Your task to perform on an android device: Open display settings Image 0: 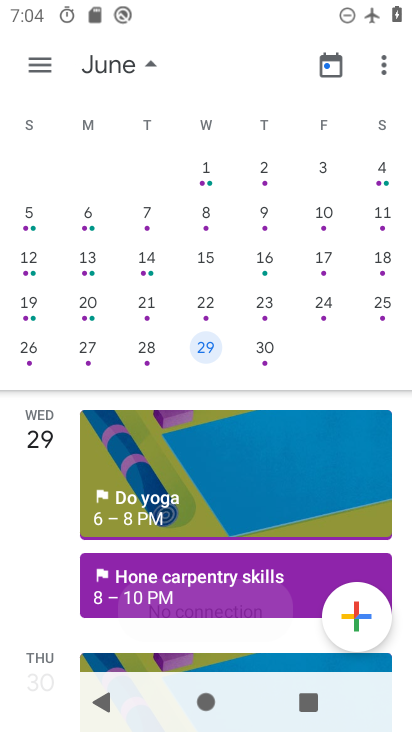
Step 0: press home button
Your task to perform on an android device: Open display settings Image 1: 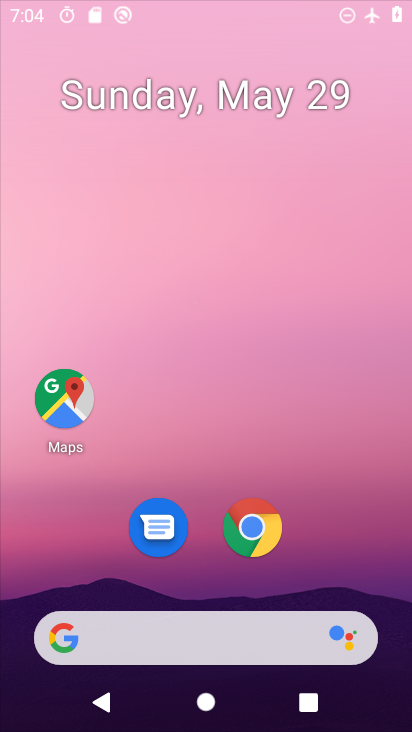
Step 1: drag from (312, 659) to (273, 23)
Your task to perform on an android device: Open display settings Image 2: 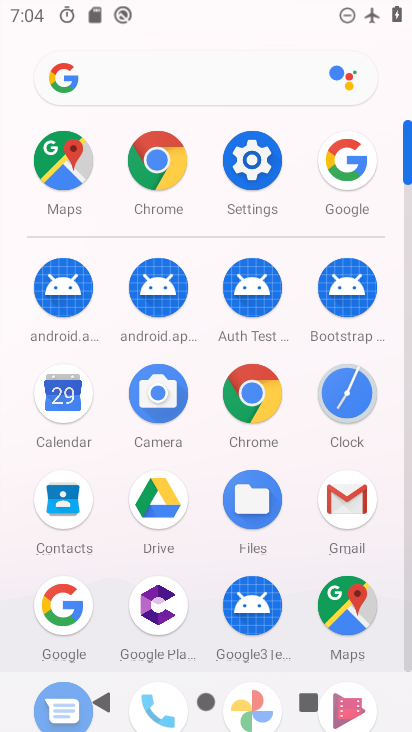
Step 2: click (279, 156)
Your task to perform on an android device: Open display settings Image 3: 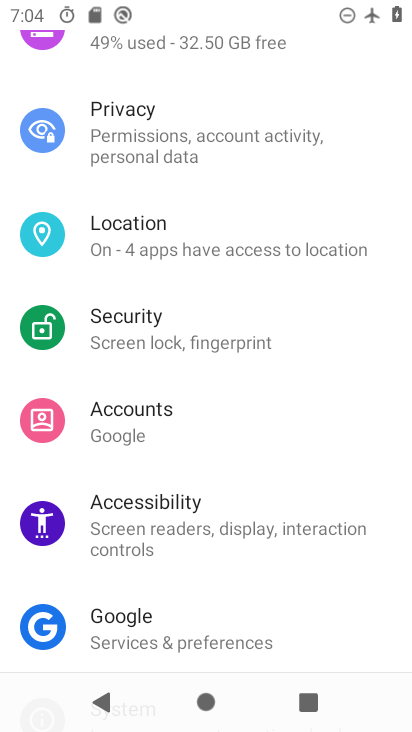
Step 3: drag from (137, 108) to (207, 536)
Your task to perform on an android device: Open display settings Image 4: 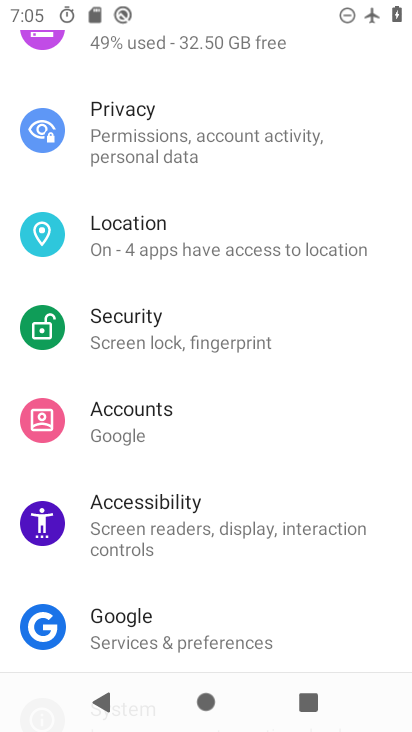
Step 4: drag from (261, 153) to (225, 537)
Your task to perform on an android device: Open display settings Image 5: 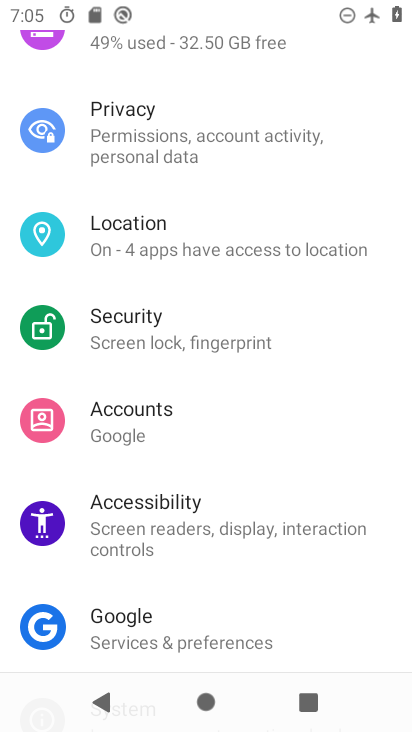
Step 5: drag from (309, 128) to (239, 608)
Your task to perform on an android device: Open display settings Image 6: 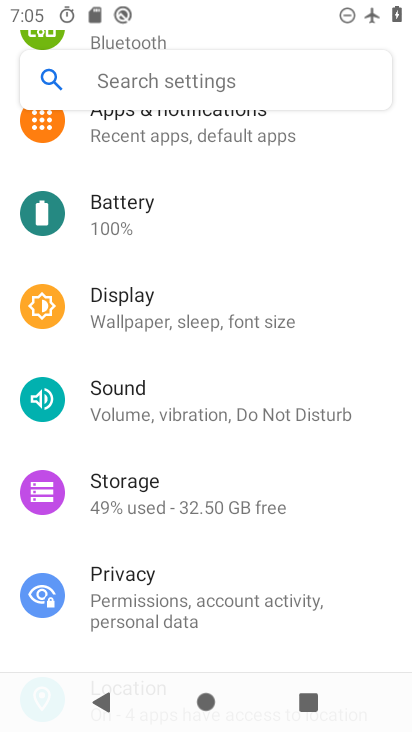
Step 6: click (172, 300)
Your task to perform on an android device: Open display settings Image 7: 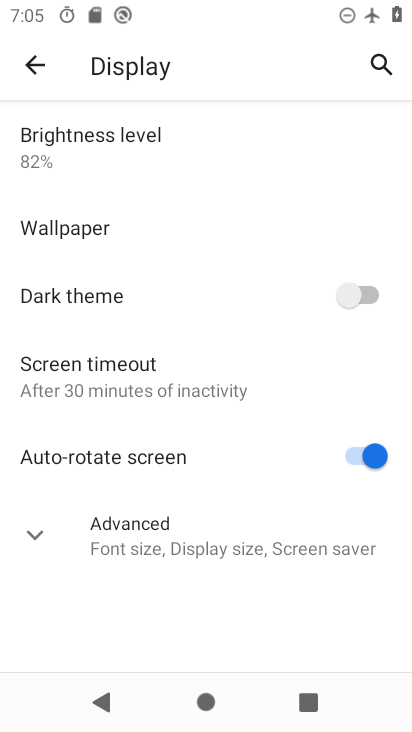
Step 7: task complete